Your task to perform on an android device: Open battery settings Image 0: 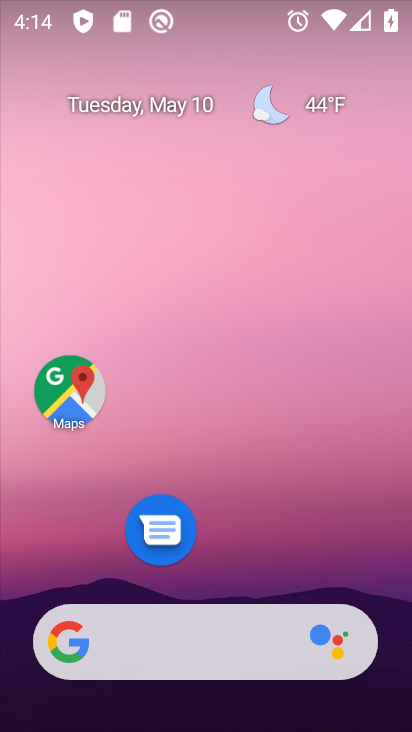
Step 0: drag from (214, 571) to (300, 119)
Your task to perform on an android device: Open battery settings Image 1: 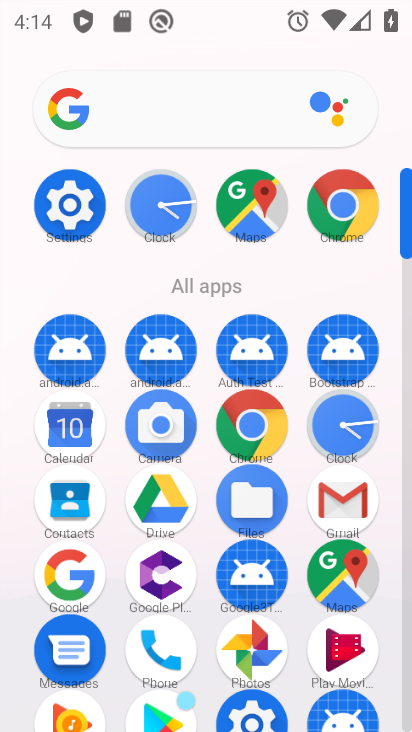
Step 1: click (80, 194)
Your task to perform on an android device: Open battery settings Image 2: 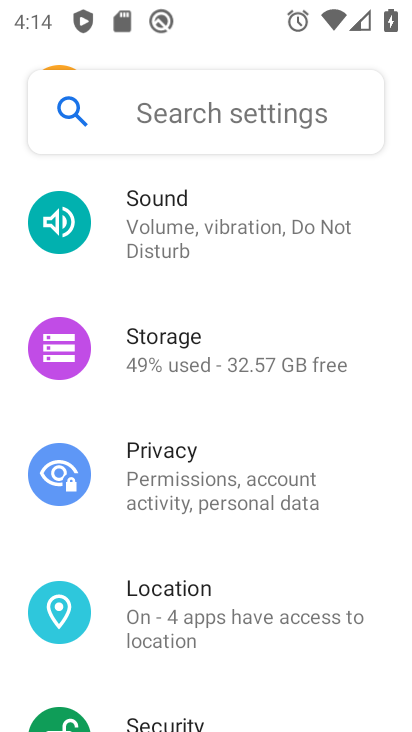
Step 2: drag from (217, 237) to (201, 713)
Your task to perform on an android device: Open battery settings Image 3: 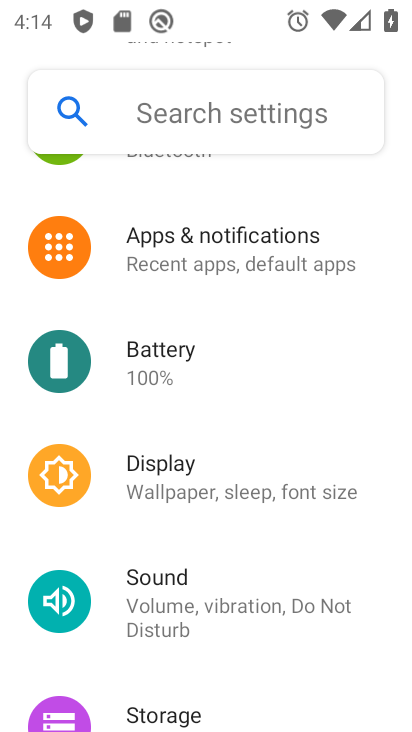
Step 3: click (188, 373)
Your task to perform on an android device: Open battery settings Image 4: 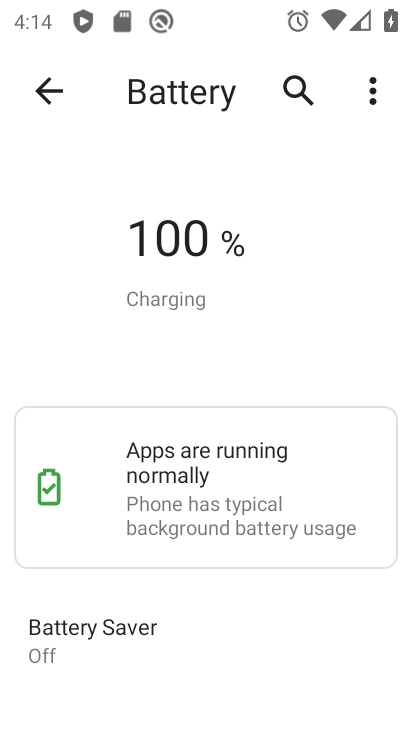
Step 4: task complete